Your task to perform on an android device: Toggle the flashlight Image 0: 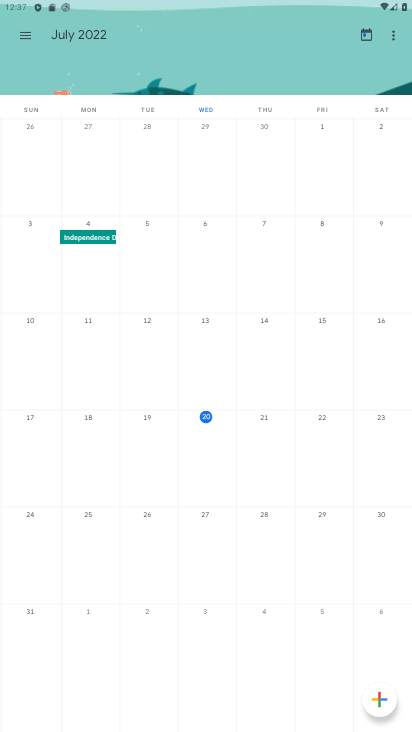
Step 0: drag from (206, 649) to (200, 488)
Your task to perform on an android device: Toggle the flashlight Image 1: 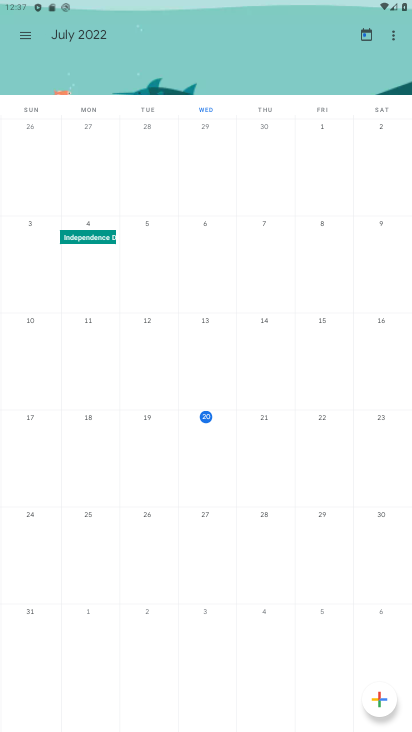
Step 1: press home button
Your task to perform on an android device: Toggle the flashlight Image 2: 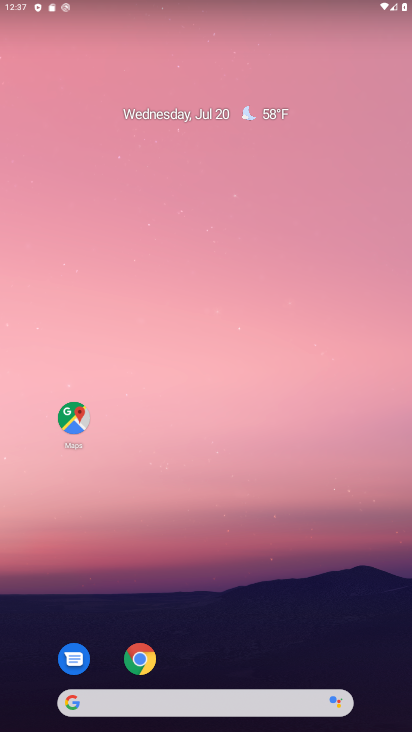
Step 2: drag from (193, 658) to (175, 264)
Your task to perform on an android device: Toggle the flashlight Image 3: 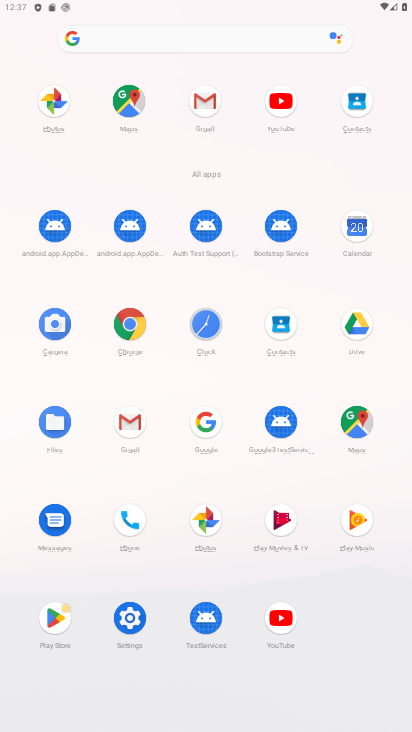
Step 3: click (150, 631)
Your task to perform on an android device: Toggle the flashlight Image 4: 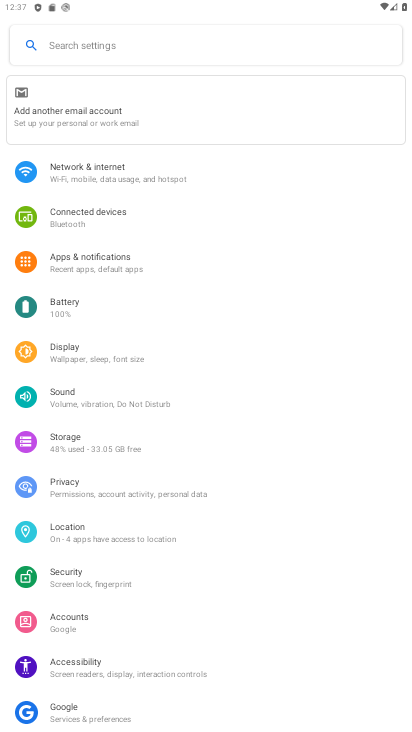
Step 4: click (167, 42)
Your task to perform on an android device: Toggle the flashlight Image 5: 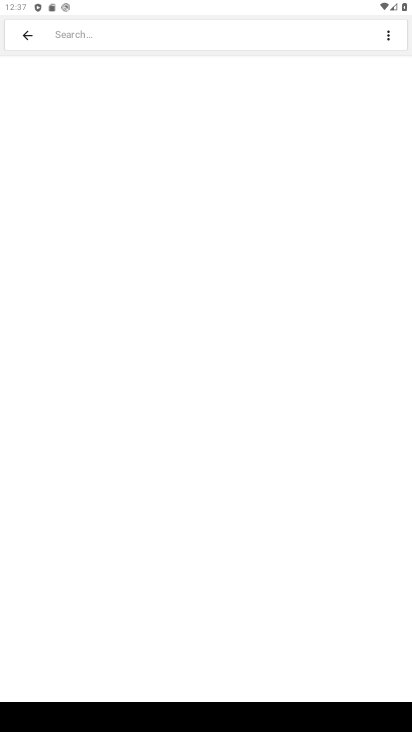
Step 5: type "flashlight"
Your task to perform on an android device: Toggle the flashlight Image 6: 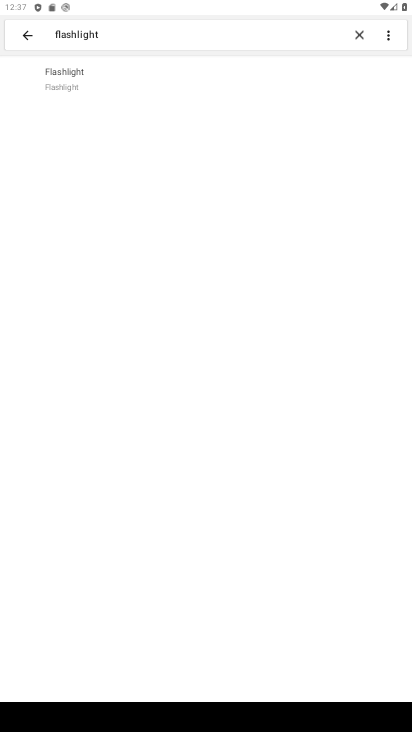
Step 6: task complete